Your task to perform on an android device: Search for a 3d printer on aliexpress Image 0: 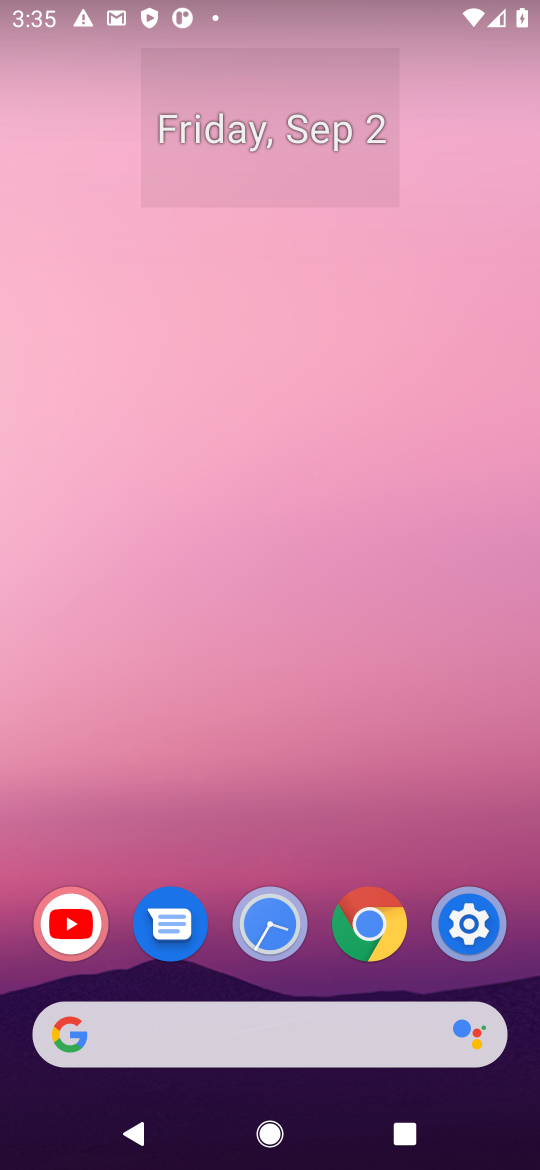
Step 0: press home button
Your task to perform on an android device: Search for a 3d printer on aliexpress Image 1: 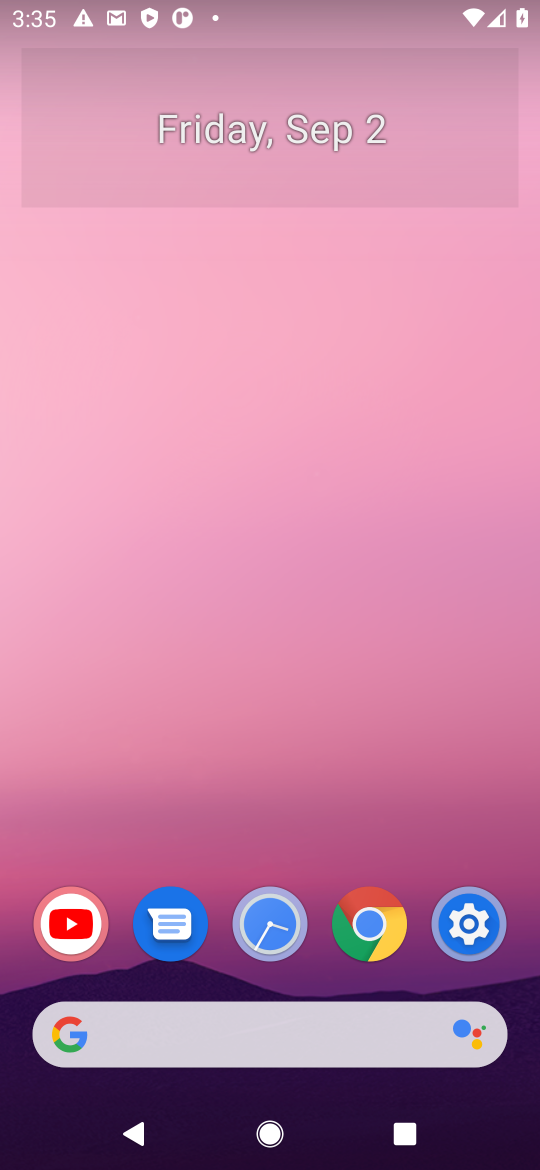
Step 1: click (414, 1019)
Your task to perform on an android device: Search for a 3d printer on aliexpress Image 2: 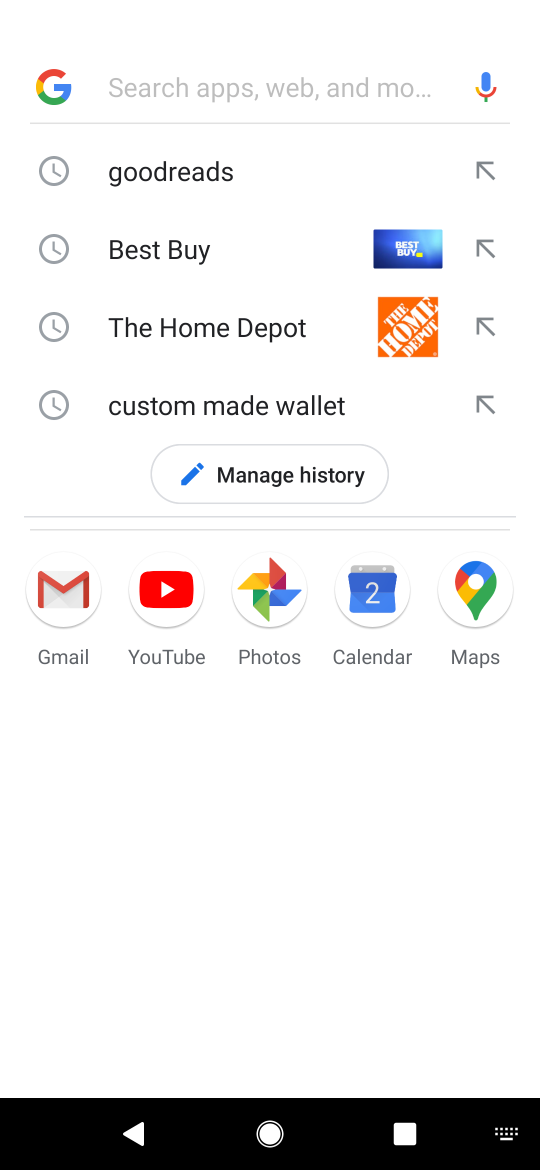
Step 2: press enter
Your task to perform on an android device: Search for a 3d printer on aliexpress Image 3: 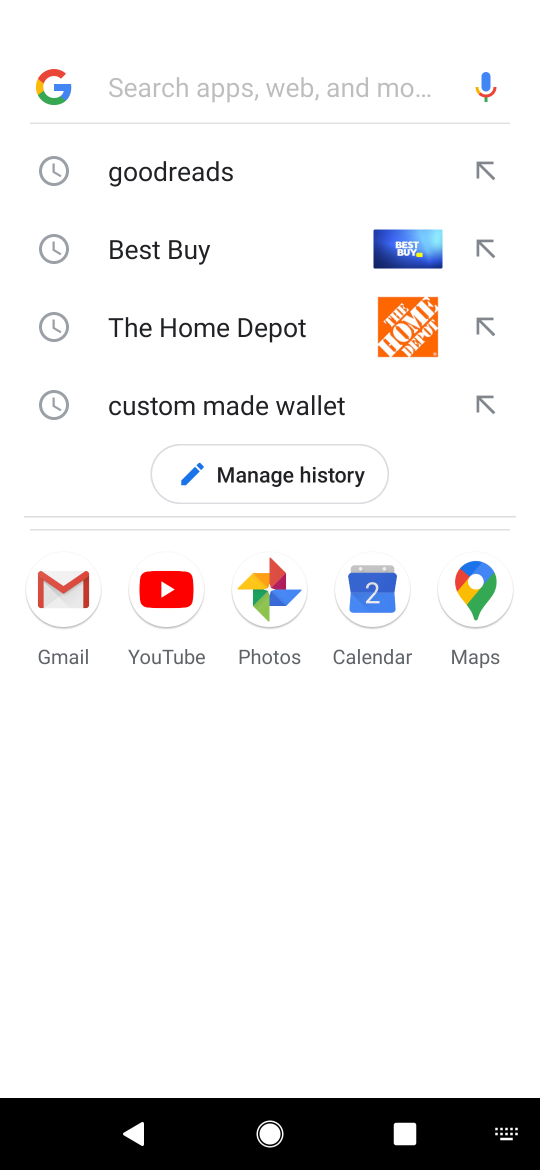
Step 3: type "aliexpress"
Your task to perform on an android device: Search for a 3d printer on aliexpress Image 4: 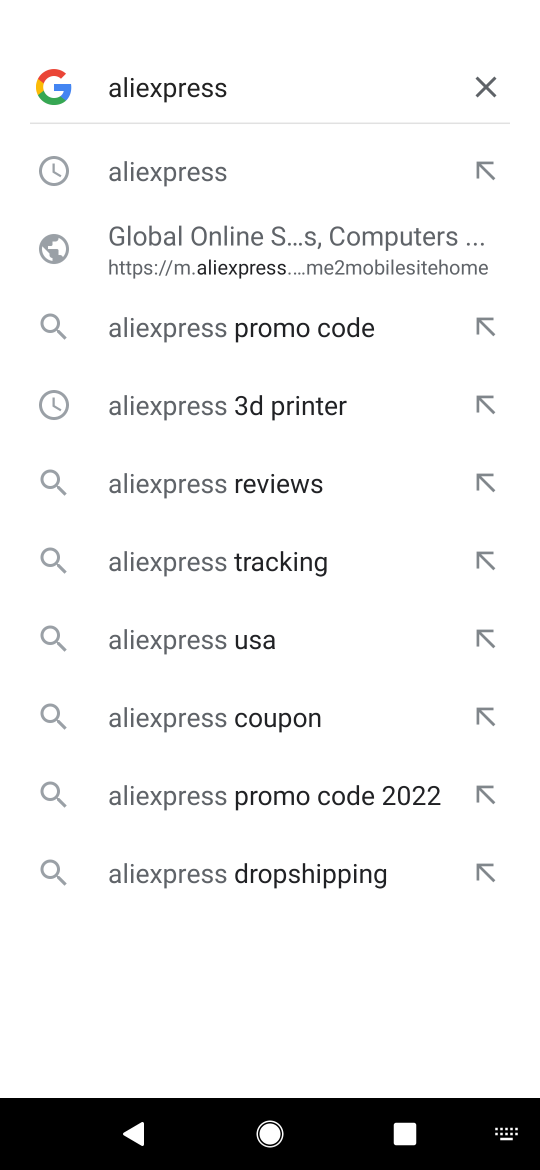
Step 4: click (211, 171)
Your task to perform on an android device: Search for a 3d printer on aliexpress Image 5: 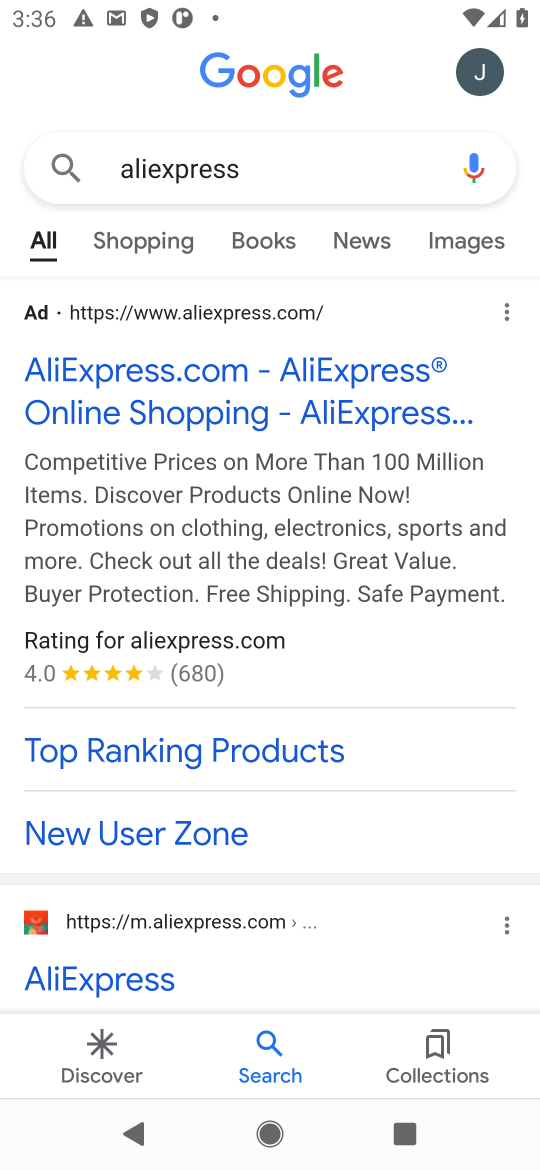
Step 5: click (207, 383)
Your task to perform on an android device: Search for a 3d printer on aliexpress Image 6: 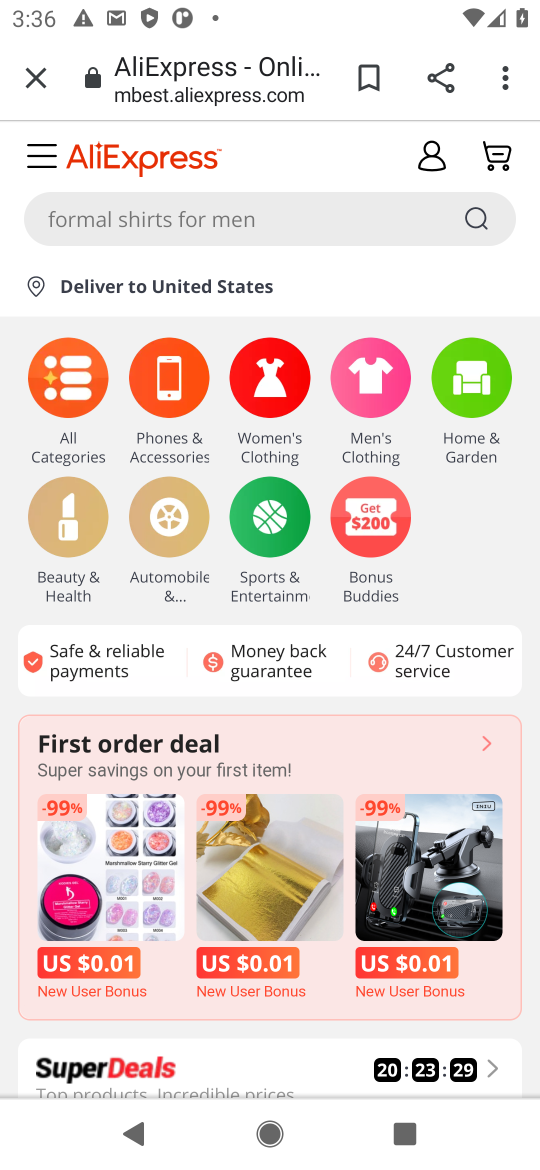
Step 6: click (152, 222)
Your task to perform on an android device: Search for a 3d printer on aliexpress Image 7: 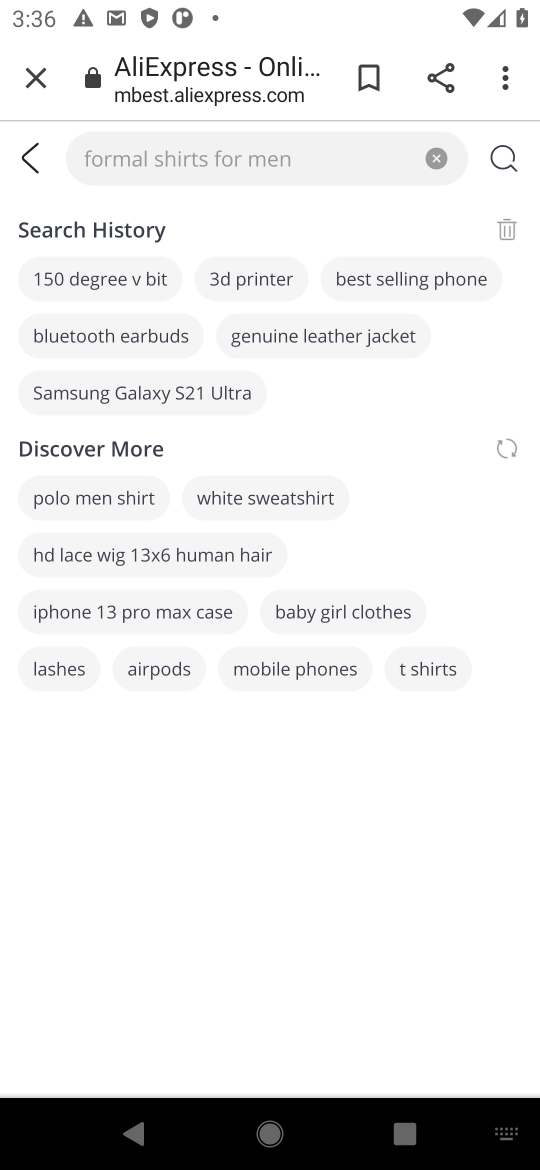
Step 7: click (263, 277)
Your task to perform on an android device: Search for a 3d printer on aliexpress Image 8: 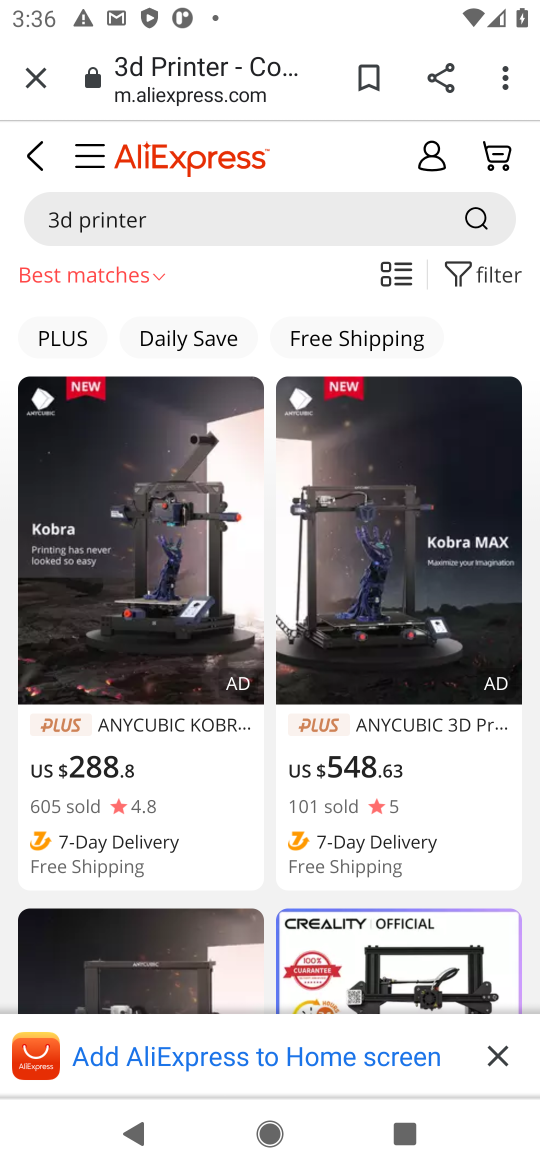
Step 8: task complete